Your task to perform on an android device: Open location settings Image 0: 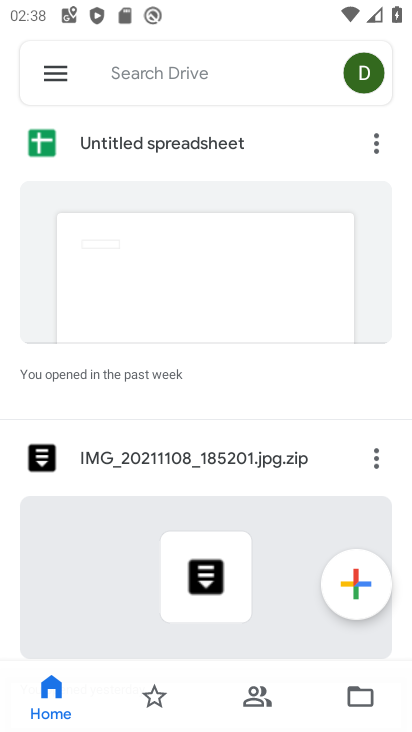
Step 0: press home button
Your task to perform on an android device: Open location settings Image 1: 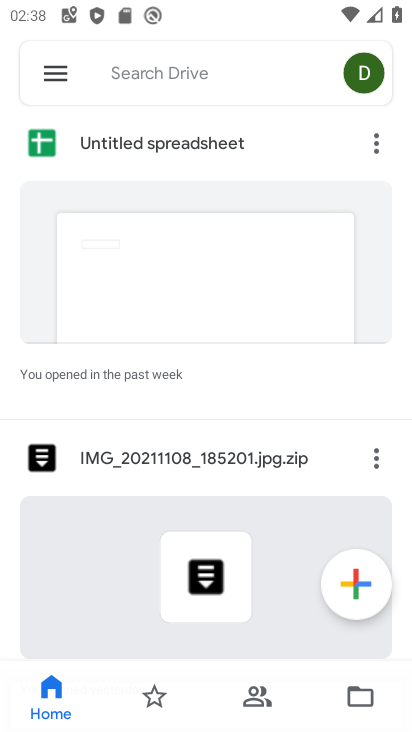
Step 1: press home button
Your task to perform on an android device: Open location settings Image 2: 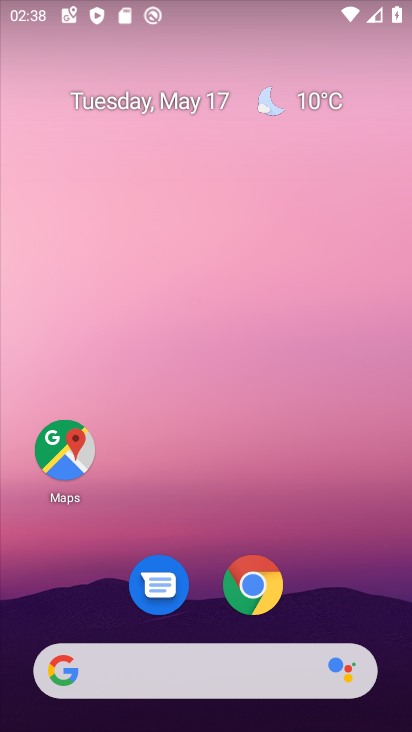
Step 2: drag from (182, 494) to (194, 13)
Your task to perform on an android device: Open location settings Image 3: 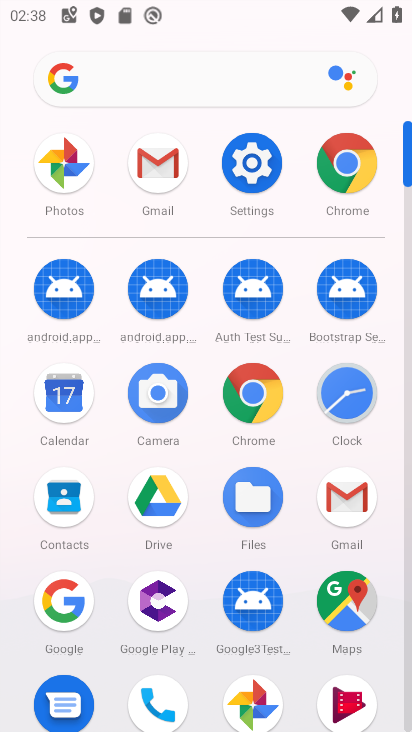
Step 3: click (249, 172)
Your task to perform on an android device: Open location settings Image 4: 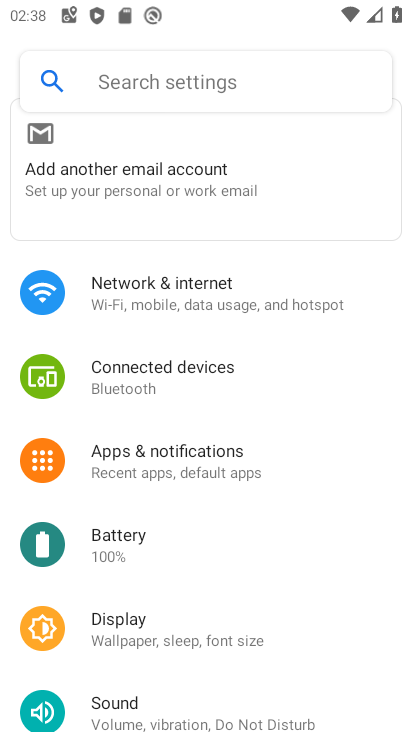
Step 4: drag from (220, 558) to (251, 242)
Your task to perform on an android device: Open location settings Image 5: 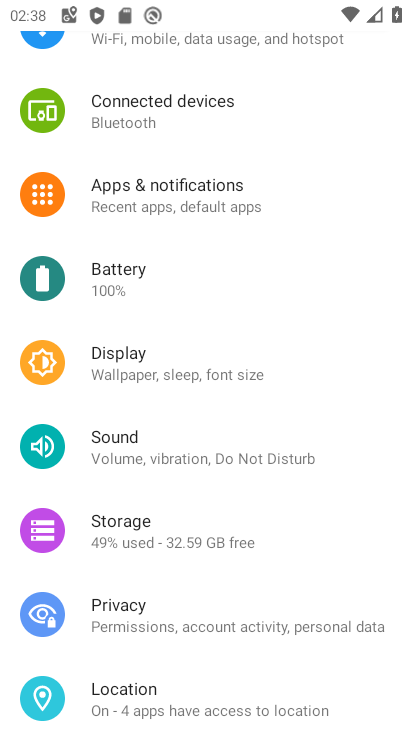
Step 5: click (192, 697)
Your task to perform on an android device: Open location settings Image 6: 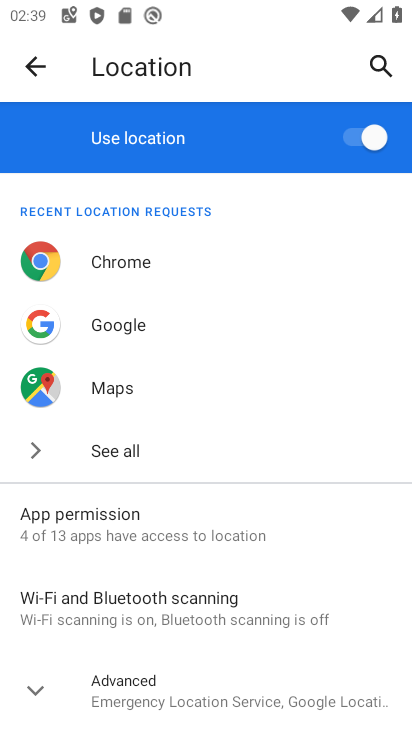
Step 6: task complete